Your task to perform on an android device: turn off javascript in the chrome app Image 0: 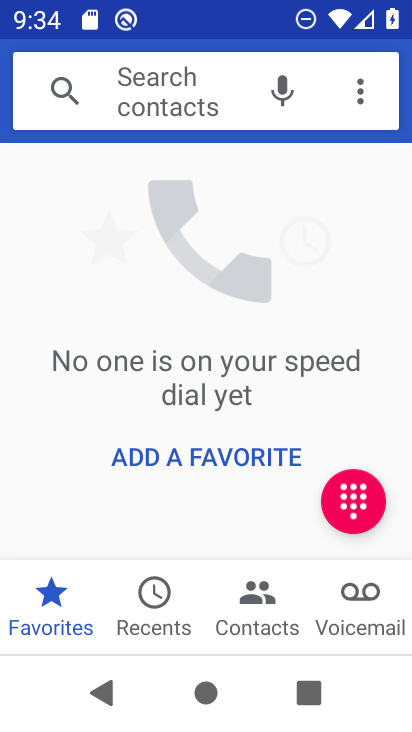
Step 0: press home button
Your task to perform on an android device: turn off javascript in the chrome app Image 1: 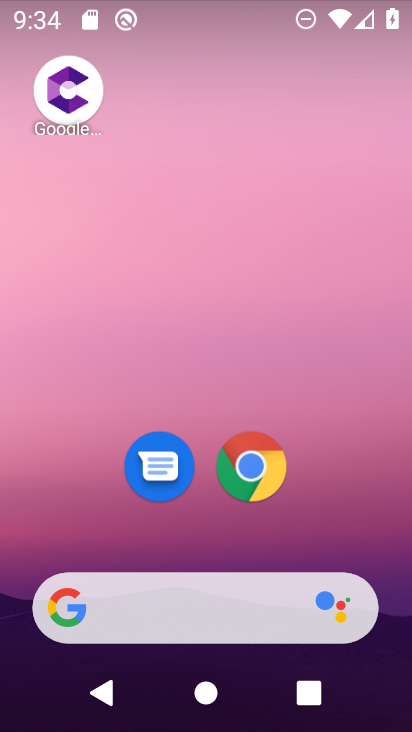
Step 1: click (276, 460)
Your task to perform on an android device: turn off javascript in the chrome app Image 2: 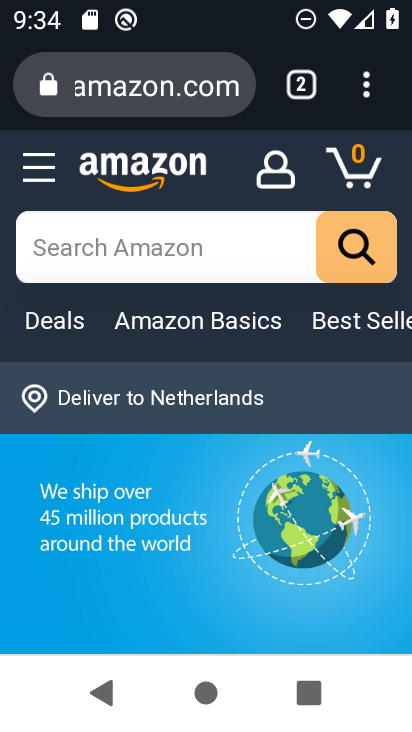
Step 2: click (358, 81)
Your task to perform on an android device: turn off javascript in the chrome app Image 3: 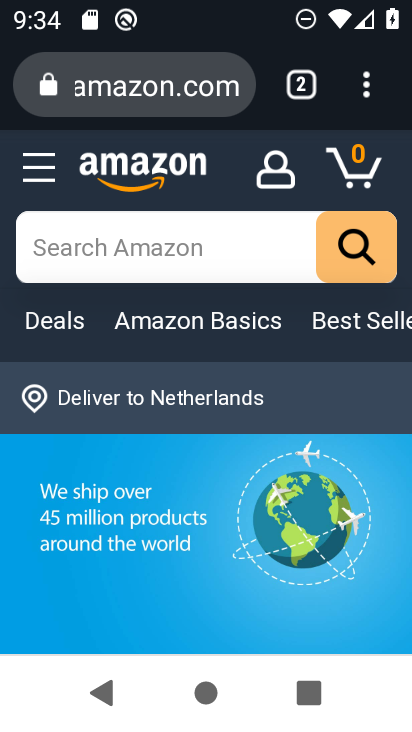
Step 3: click (362, 83)
Your task to perform on an android device: turn off javascript in the chrome app Image 4: 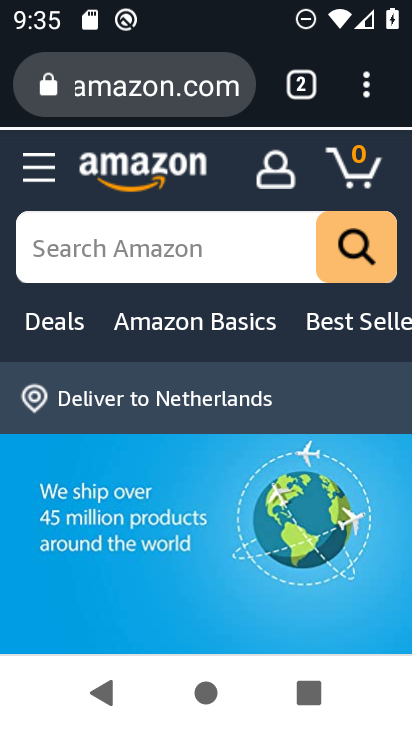
Step 4: click (370, 101)
Your task to perform on an android device: turn off javascript in the chrome app Image 5: 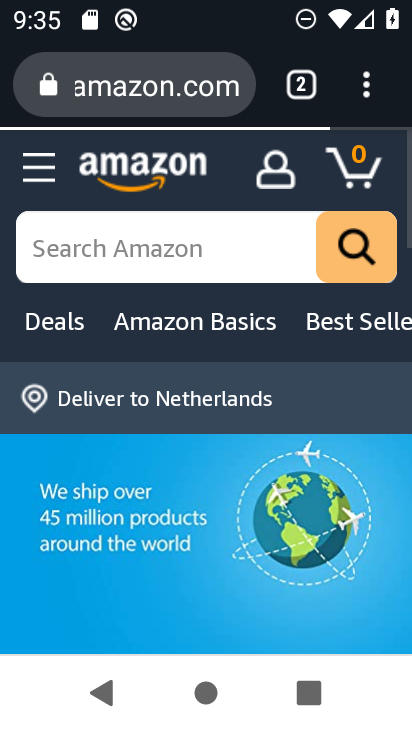
Step 5: click (350, 109)
Your task to perform on an android device: turn off javascript in the chrome app Image 6: 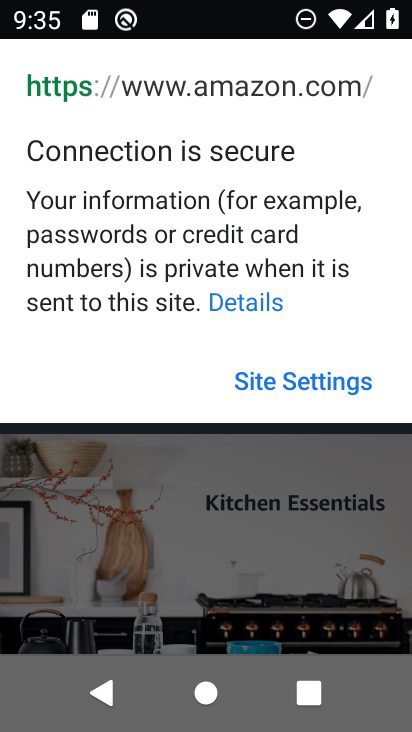
Step 6: click (217, 488)
Your task to perform on an android device: turn off javascript in the chrome app Image 7: 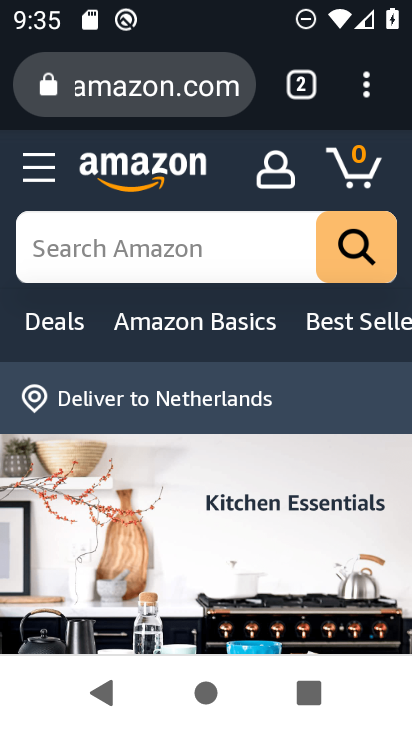
Step 7: click (372, 100)
Your task to perform on an android device: turn off javascript in the chrome app Image 8: 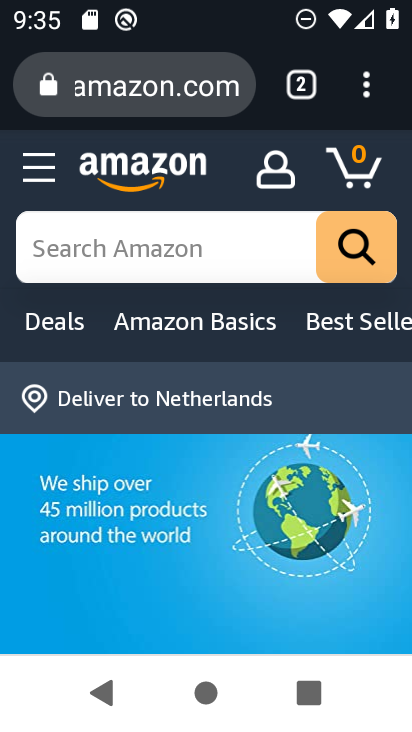
Step 8: click (372, 100)
Your task to perform on an android device: turn off javascript in the chrome app Image 9: 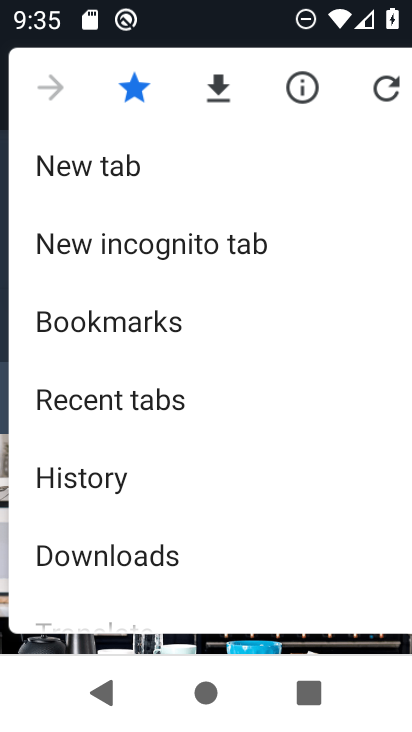
Step 9: drag from (105, 552) to (132, 444)
Your task to perform on an android device: turn off javascript in the chrome app Image 10: 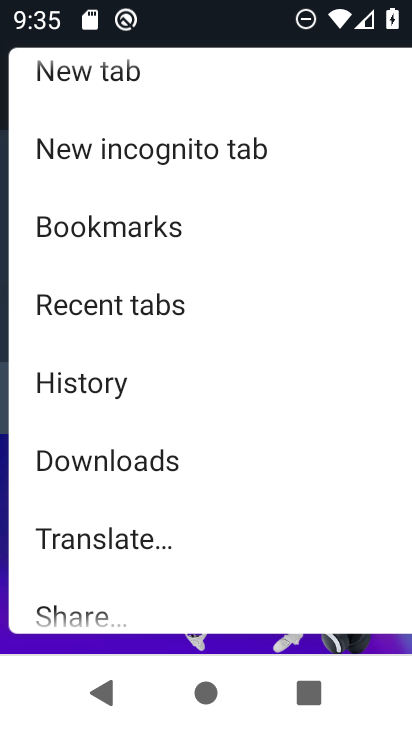
Step 10: drag from (213, 563) to (261, 407)
Your task to perform on an android device: turn off javascript in the chrome app Image 11: 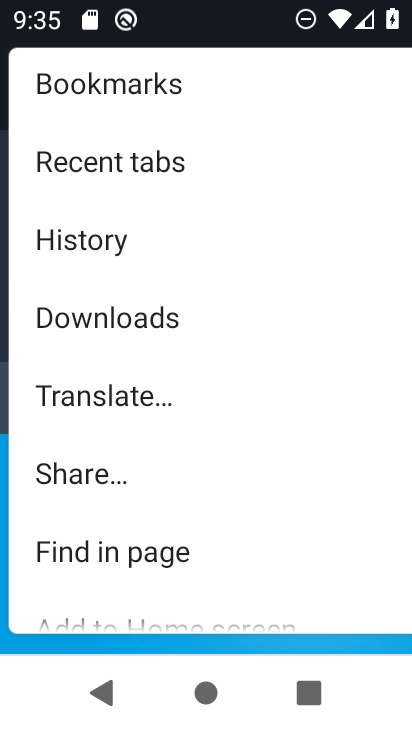
Step 11: drag from (212, 543) to (237, 470)
Your task to perform on an android device: turn off javascript in the chrome app Image 12: 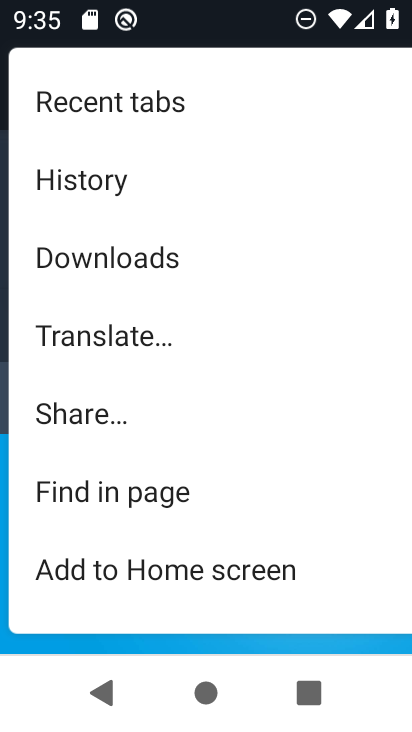
Step 12: drag from (261, 559) to (289, 454)
Your task to perform on an android device: turn off javascript in the chrome app Image 13: 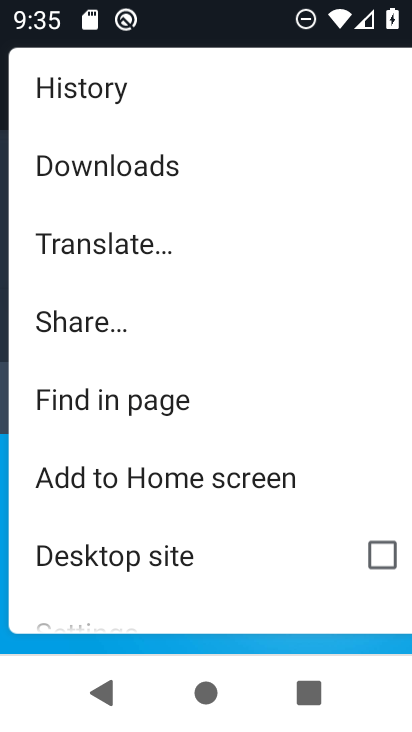
Step 13: drag from (230, 576) to (252, 469)
Your task to perform on an android device: turn off javascript in the chrome app Image 14: 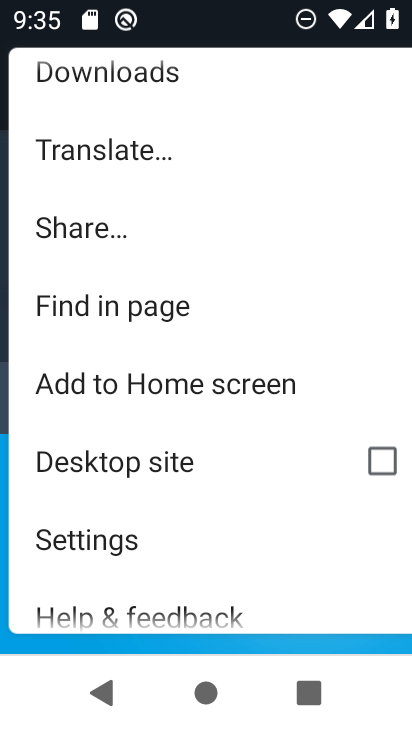
Step 14: click (195, 537)
Your task to perform on an android device: turn off javascript in the chrome app Image 15: 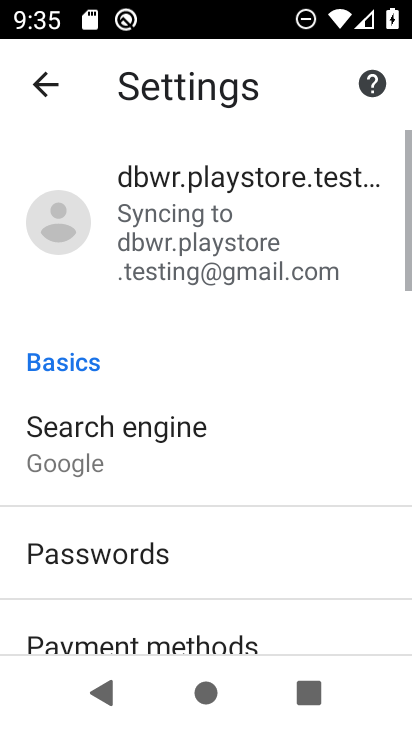
Step 15: drag from (195, 537) to (226, 430)
Your task to perform on an android device: turn off javascript in the chrome app Image 16: 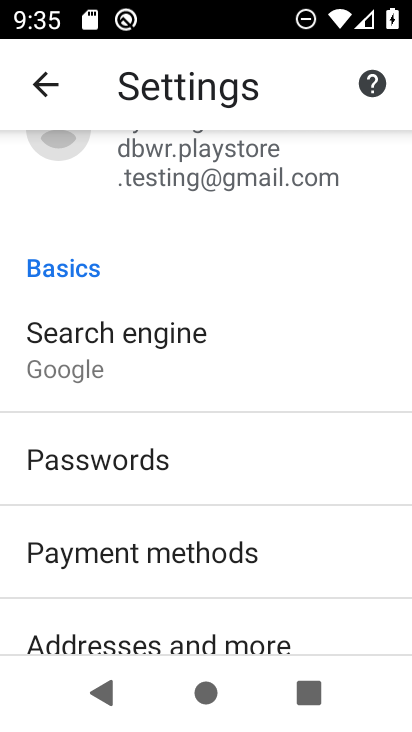
Step 16: drag from (170, 565) to (200, 468)
Your task to perform on an android device: turn off javascript in the chrome app Image 17: 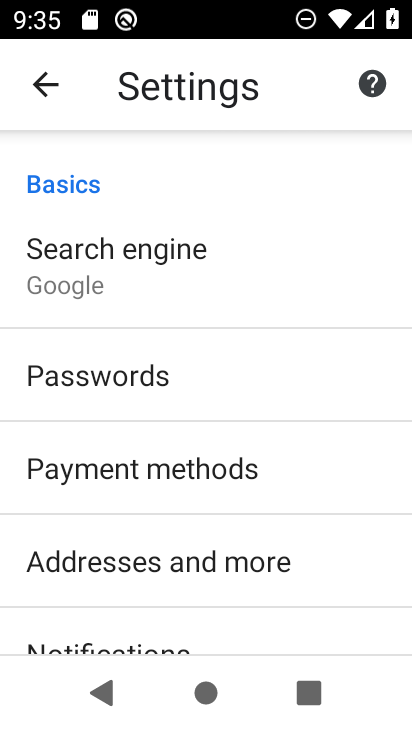
Step 17: drag from (196, 574) to (218, 470)
Your task to perform on an android device: turn off javascript in the chrome app Image 18: 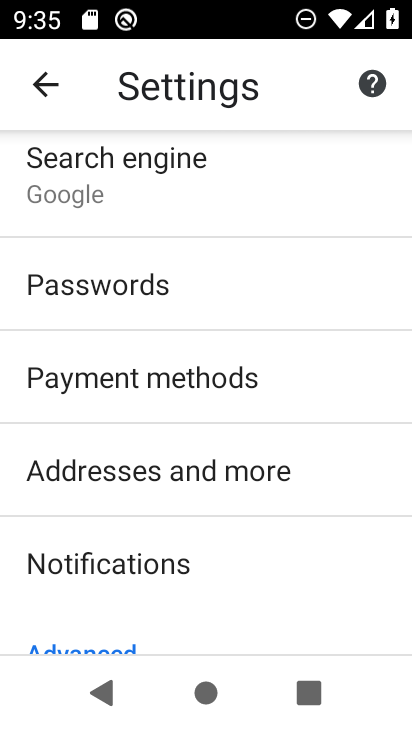
Step 18: drag from (171, 581) to (217, 471)
Your task to perform on an android device: turn off javascript in the chrome app Image 19: 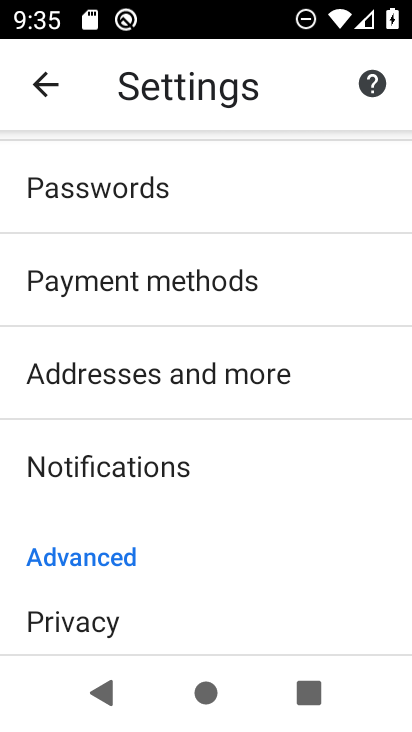
Step 19: drag from (160, 565) to (208, 444)
Your task to perform on an android device: turn off javascript in the chrome app Image 20: 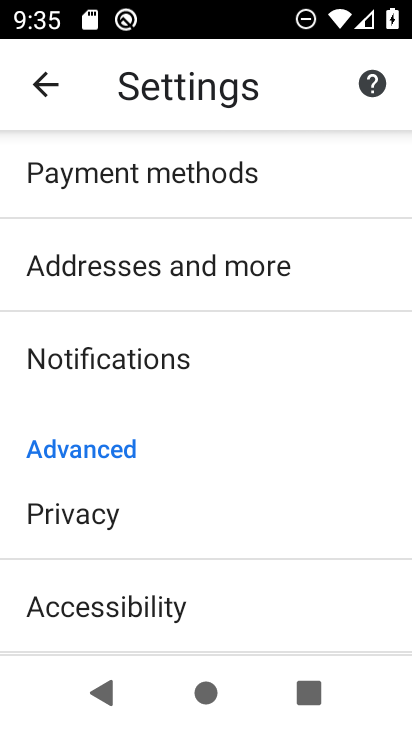
Step 20: drag from (166, 566) to (208, 451)
Your task to perform on an android device: turn off javascript in the chrome app Image 21: 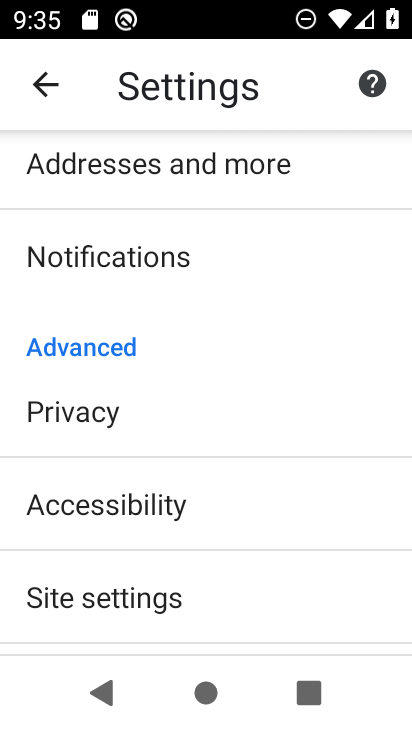
Step 21: click (151, 587)
Your task to perform on an android device: turn off javascript in the chrome app Image 22: 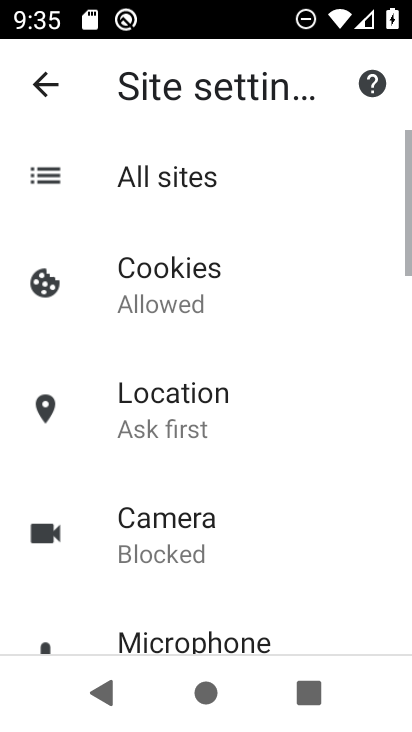
Step 22: drag from (149, 615) to (181, 500)
Your task to perform on an android device: turn off javascript in the chrome app Image 23: 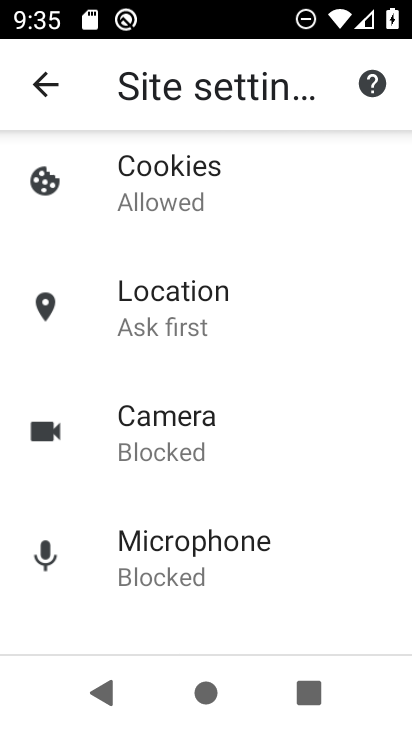
Step 23: drag from (154, 628) to (200, 503)
Your task to perform on an android device: turn off javascript in the chrome app Image 24: 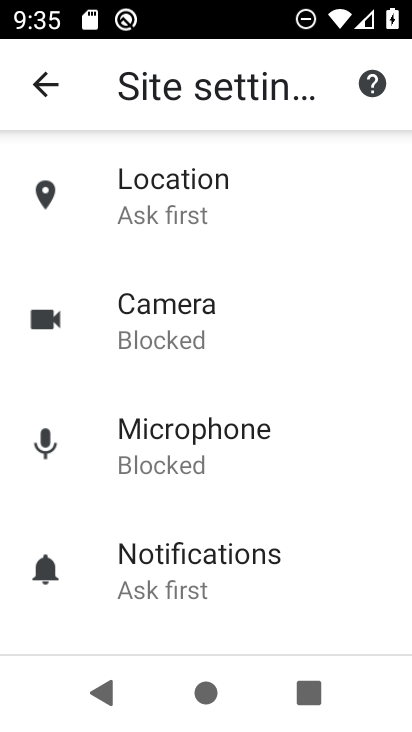
Step 24: drag from (176, 605) to (240, 471)
Your task to perform on an android device: turn off javascript in the chrome app Image 25: 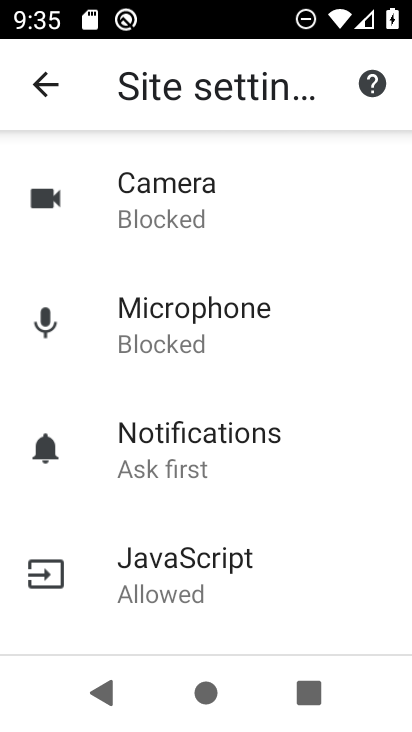
Step 25: click (237, 571)
Your task to perform on an android device: turn off javascript in the chrome app Image 26: 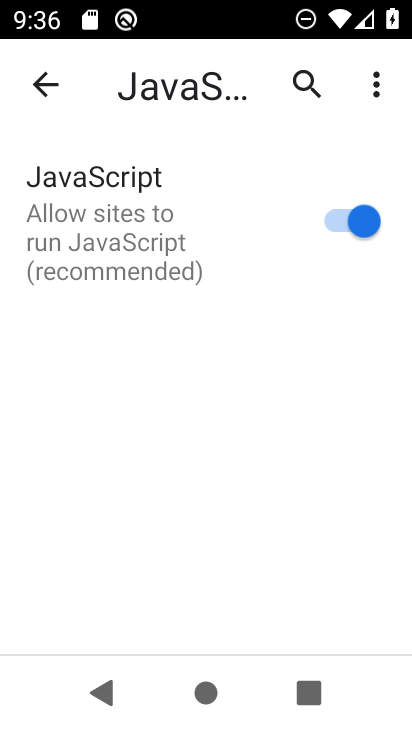
Step 26: click (361, 224)
Your task to perform on an android device: turn off javascript in the chrome app Image 27: 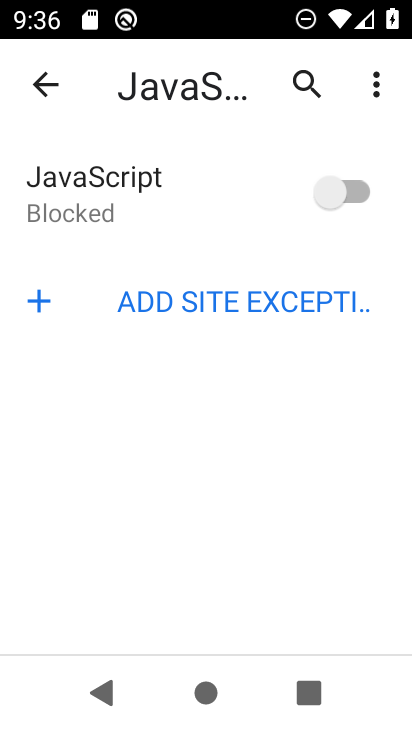
Step 27: task complete